Your task to perform on an android device: turn on wifi Image 0: 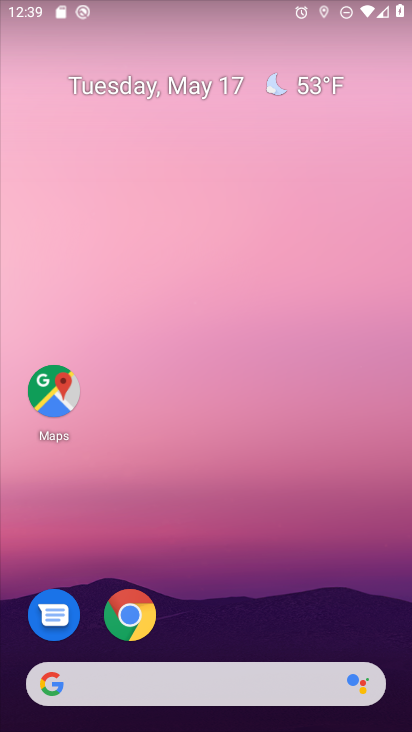
Step 0: drag from (197, 626) to (195, 260)
Your task to perform on an android device: turn on wifi Image 1: 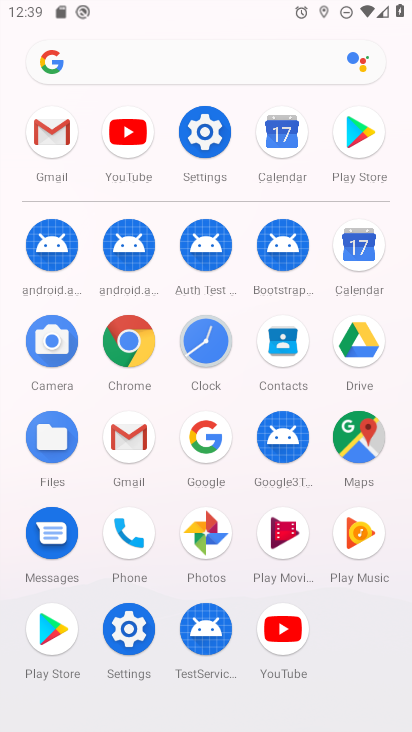
Step 1: click (208, 129)
Your task to perform on an android device: turn on wifi Image 2: 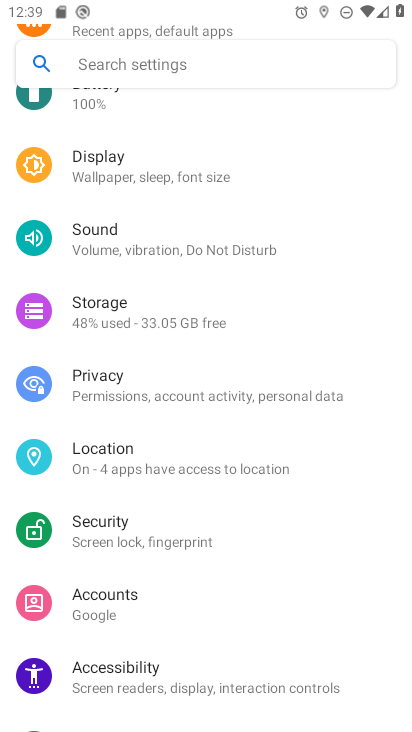
Step 2: drag from (179, 166) to (185, 601)
Your task to perform on an android device: turn on wifi Image 3: 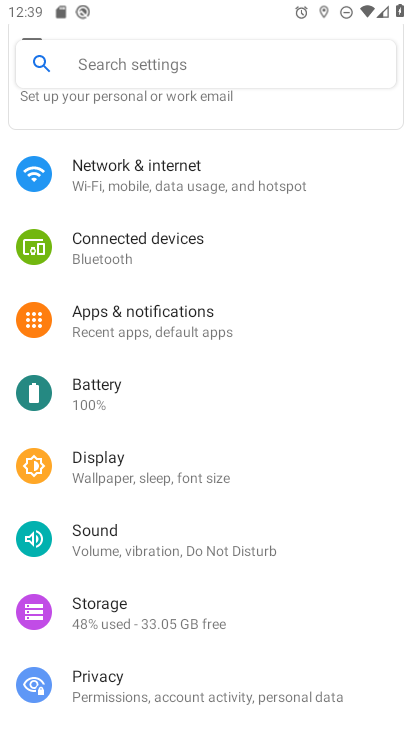
Step 3: click (143, 170)
Your task to perform on an android device: turn on wifi Image 4: 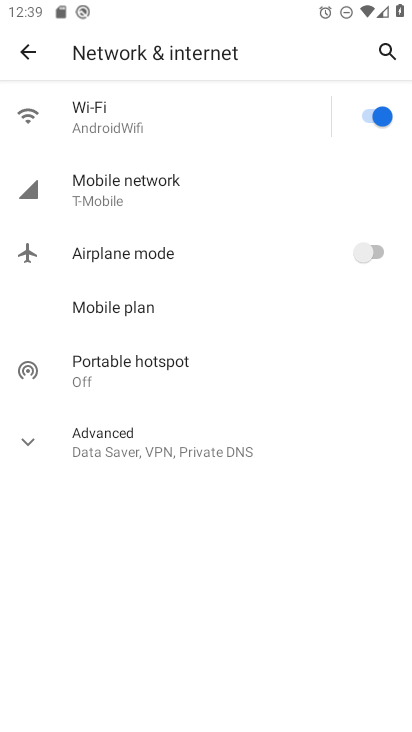
Step 4: task complete